Your task to perform on an android device: uninstall "Adobe Acrobat Reader" Image 0: 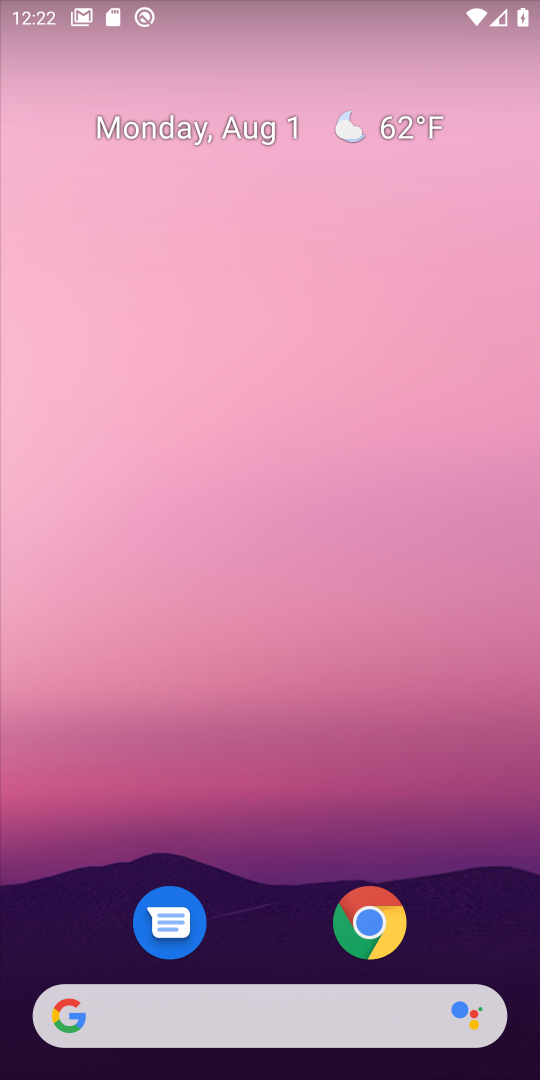
Step 0: drag from (264, 903) to (265, 99)
Your task to perform on an android device: uninstall "Adobe Acrobat Reader" Image 1: 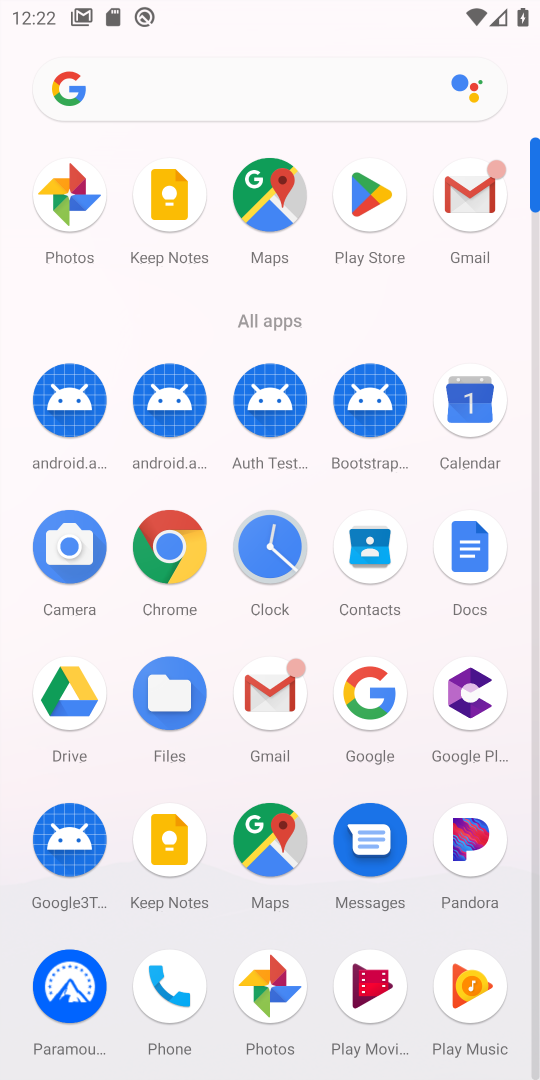
Step 1: click (345, 233)
Your task to perform on an android device: uninstall "Adobe Acrobat Reader" Image 2: 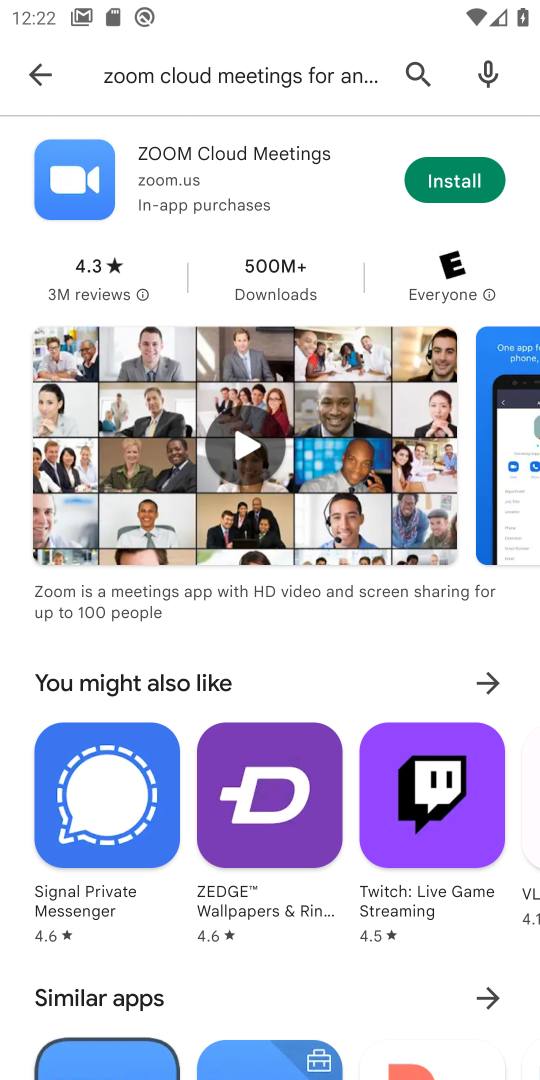
Step 2: click (424, 79)
Your task to perform on an android device: uninstall "Adobe Acrobat Reader" Image 3: 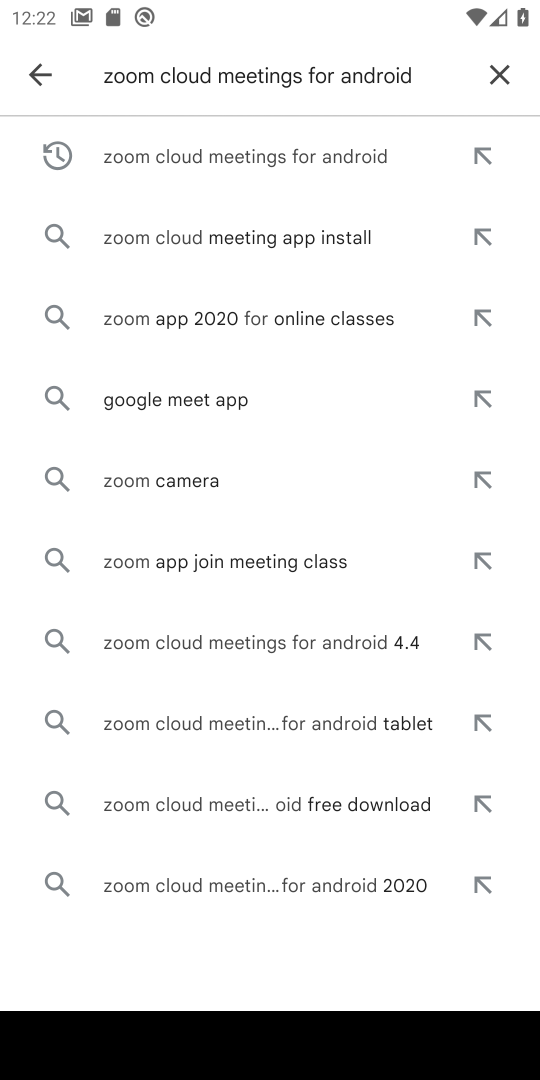
Step 3: click (497, 75)
Your task to perform on an android device: uninstall "Adobe Acrobat Reader" Image 4: 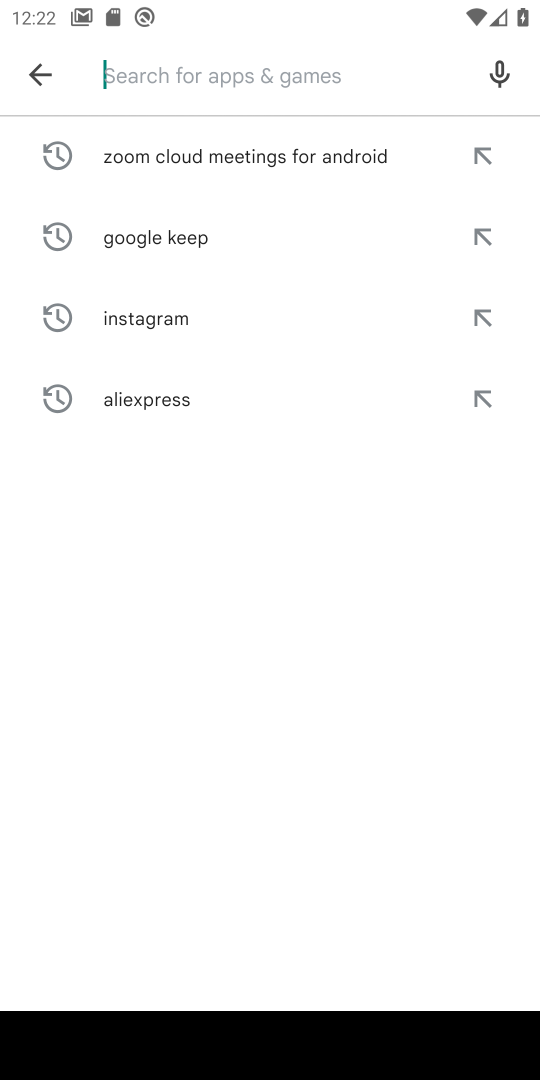
Step 4: type "Adobe Acrobat Reader"
Your task to perform on an android device: uninstall "Adobe Acrobat Reader" Image 5: 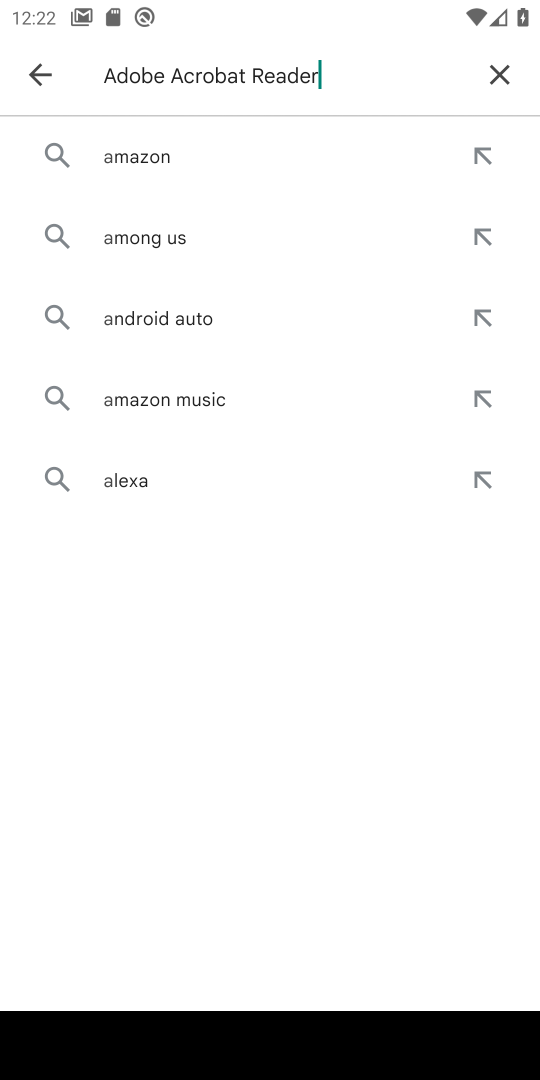
Step 5: type ""
Your task to perform on an android device: uninstall "Adobe Acrobat Reader" Image 6: 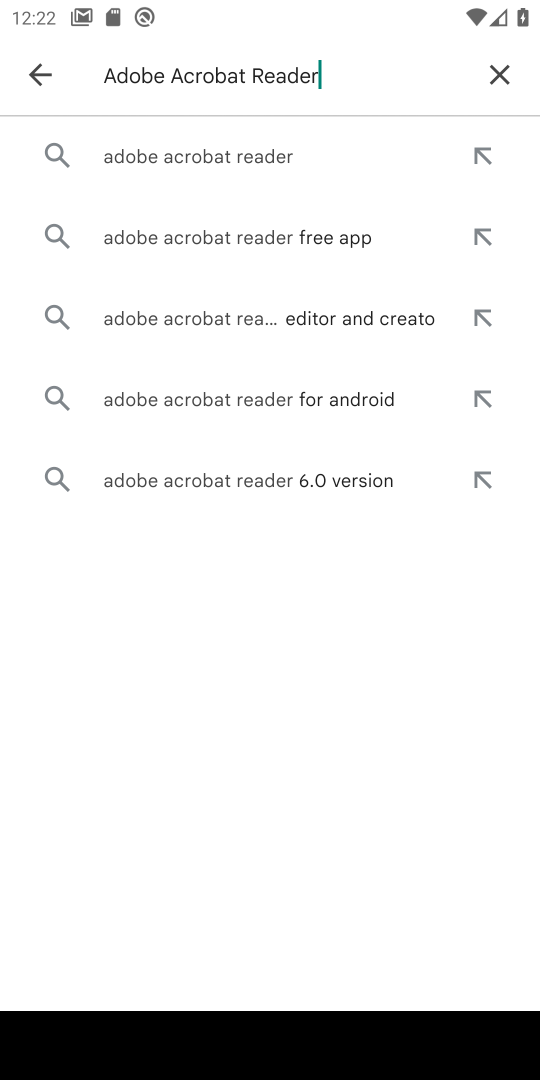
Step 6: click (195, 159)
Your task to perform on an android device: uninstall "Adobe Acrobat Reader" Image 7: 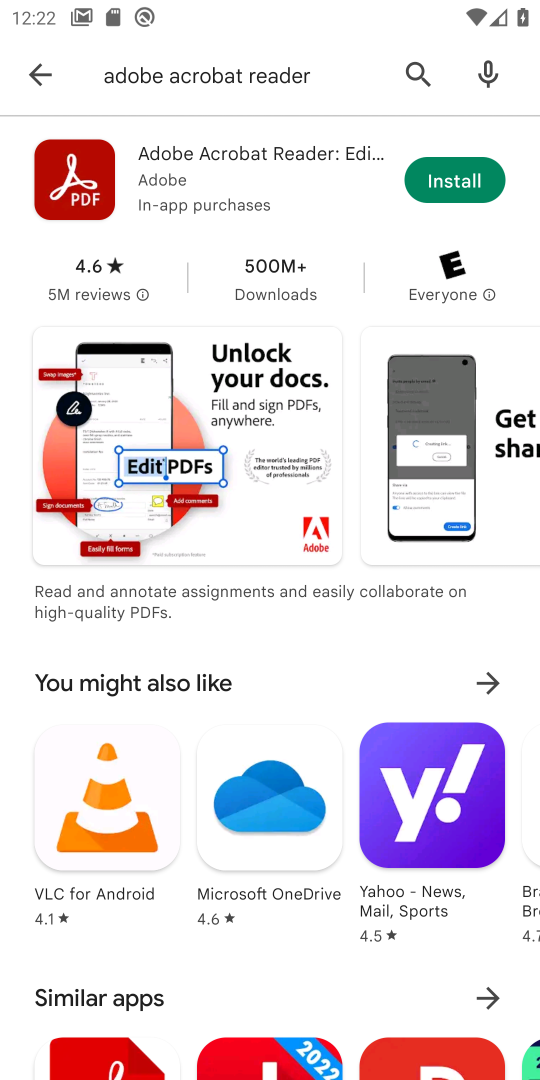
Step 7: task complete